Your task to perform on an android device: snooze an email in the gmail app Image 0: 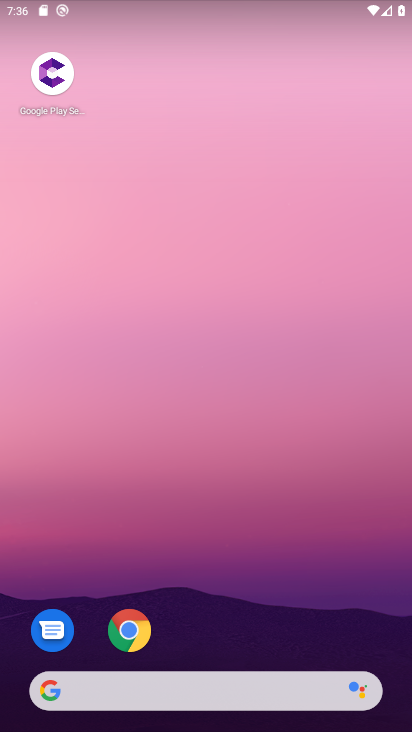
Step 0: drag from (234, 621) to (346, 77)
Your task to perform on an android device: snooze an email in the gmail app Image 1: 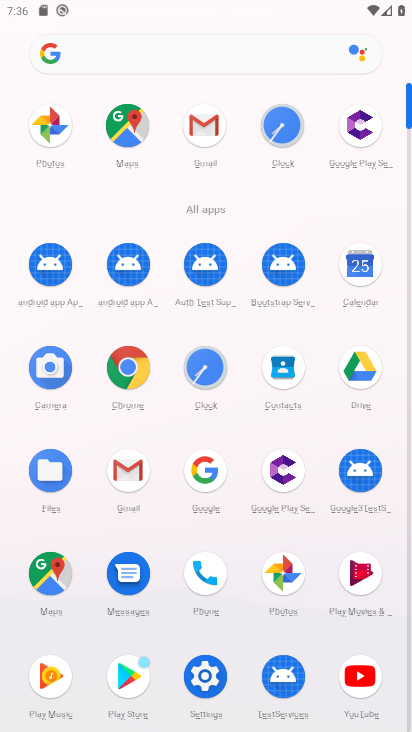
Step 1: click (190, 135)
Your task to perform on an android device: snooze an email in the gmail app Image 2: 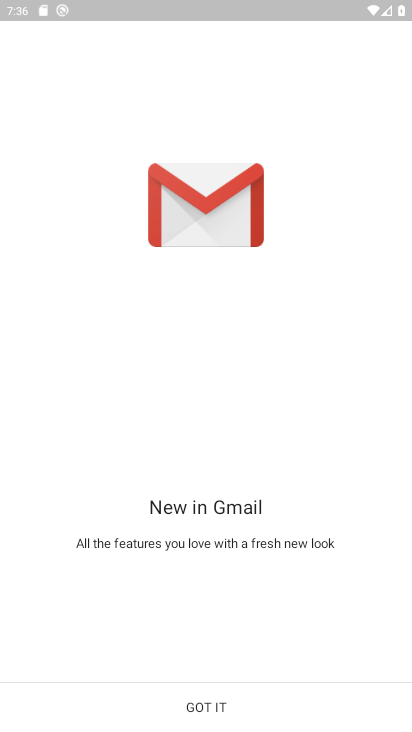
Step 2: click (205, 710)
Your task to perform on an android device: snooze an email in the gmail app Image 3: 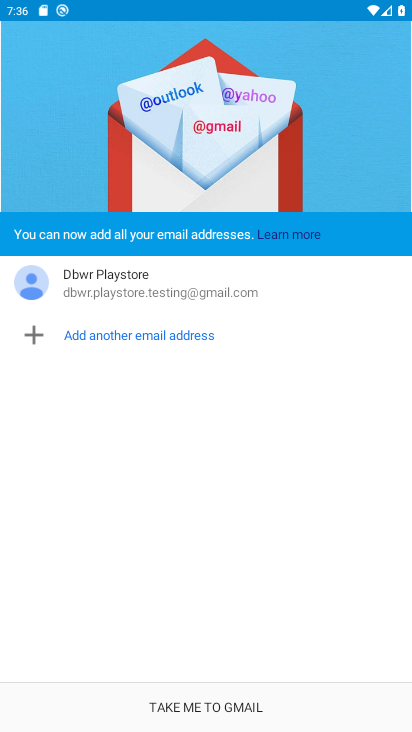
Step 3: click (205, 710)
Your task to perform on an android device: snooze an email in the gmail app Image 4: 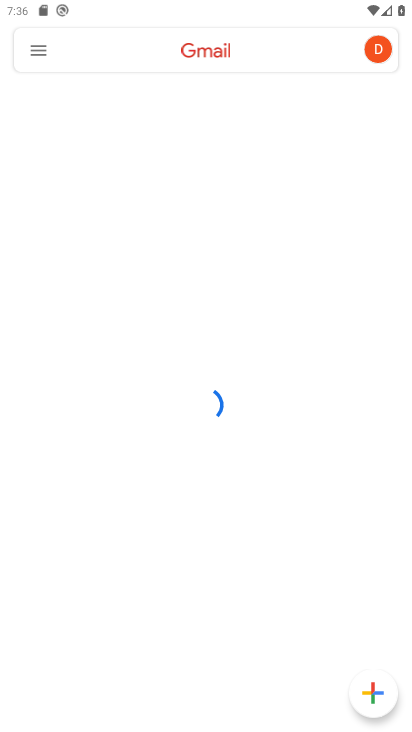
Step 4: click (38, 49)
Your task to perform on an android device: snooze an email in the gmail app Image 5: 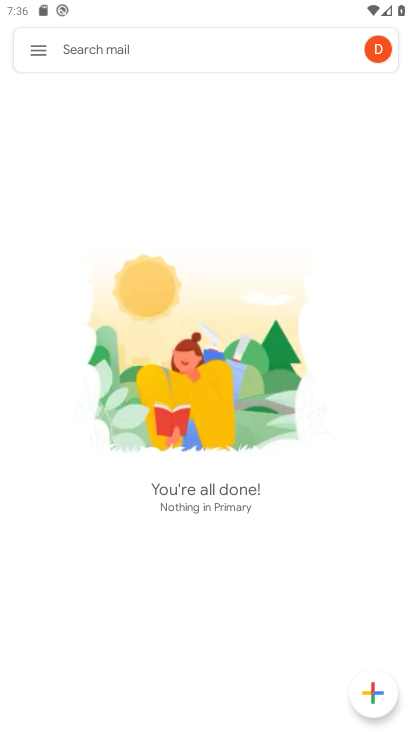
Step 5: click (38, 53)
Your task to perform on an android device: snooze an email in the gmail app Image 6: 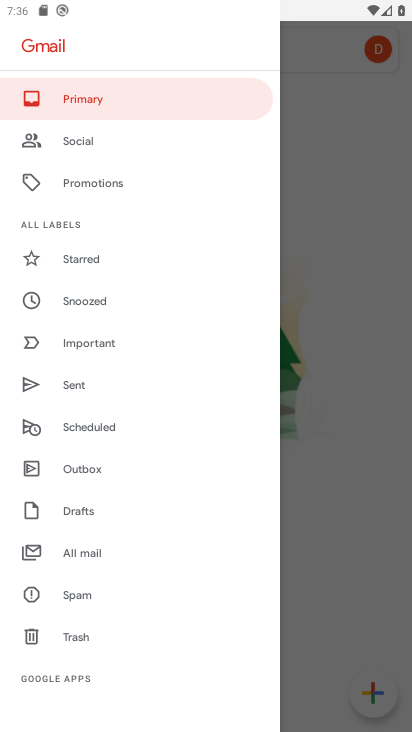
Step 6: click (83, 549)
Your task to perform on an android device: snooze an email in the gmail app Image 7: 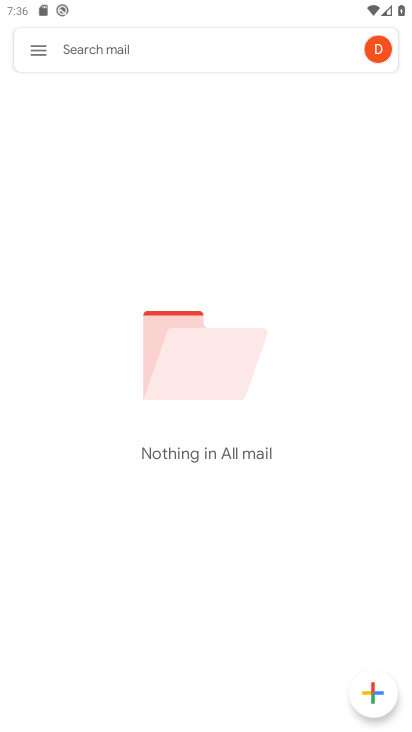
Step 7: task complete